Your task to perform on an android device: Open ESPN.com Image 0: 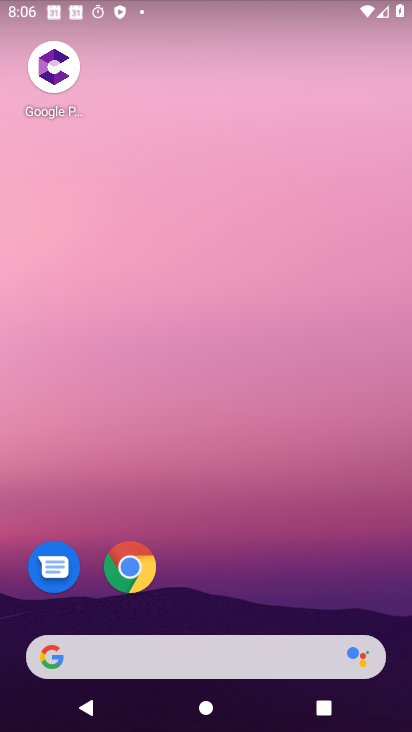
Step 0: click (137, 577)
Your task to perform on an android device: Open ESPN.com Image 1: 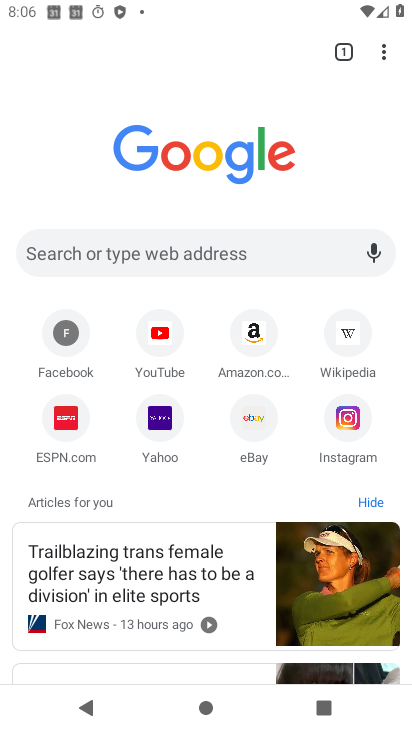
Step 1: click (67, 425)
Your task to perform on an android device: Open ESPN.com Image 2: 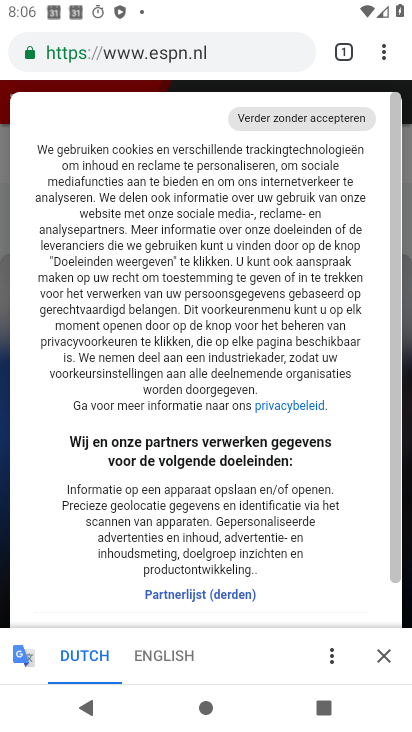
Step 2: task complete